Your task to perform on an android device: When is my next meeting? Image 0: 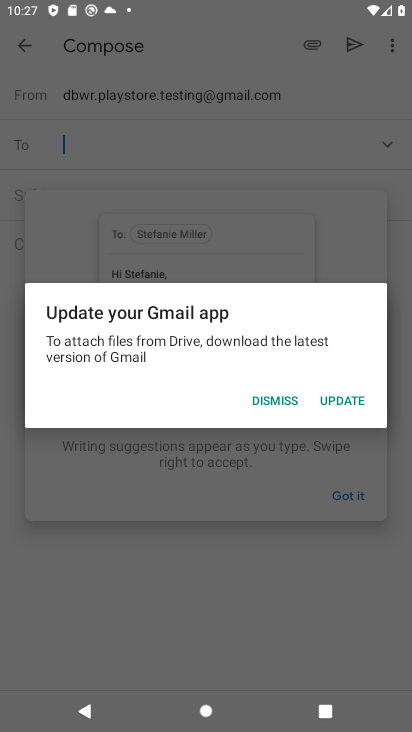
Step 0: press home button
Your task to perform on an android device: When is my next meeting? Image 1: 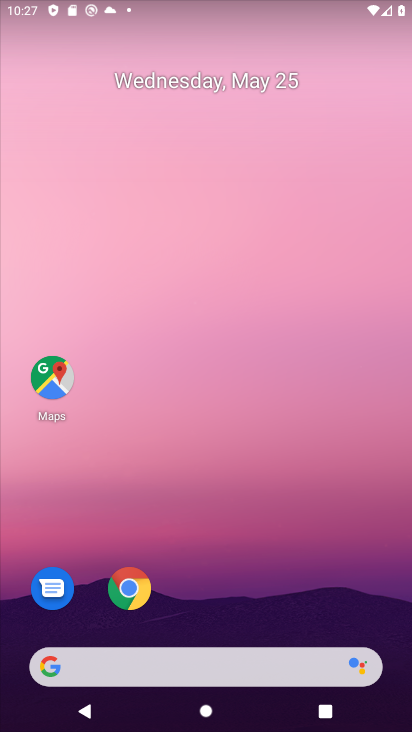
Step 1: drag from (208, 621) to (280, 40)
Your task to perform on an android device: When is my next meeting? Image 2: 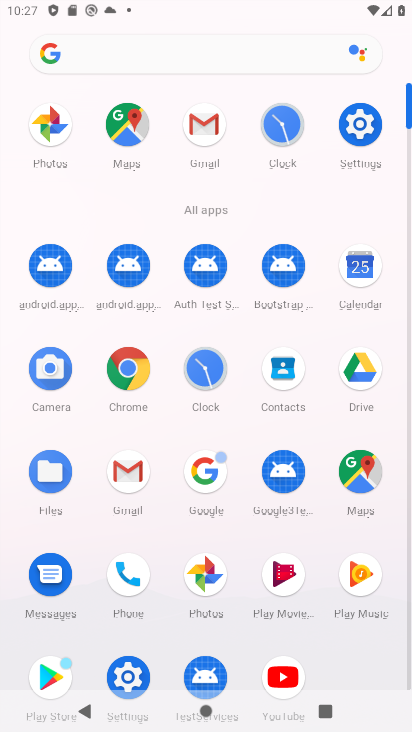
Step 2: click (374, 269)
Your task to perform on an android device: When is my next meeting? Image 3: 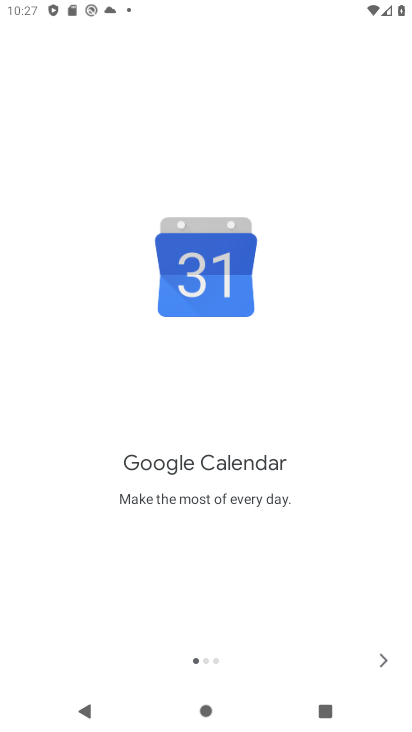
Step 3: click (384, 660)
Your task to perform on an android device: When is my next meeting? Image 4: 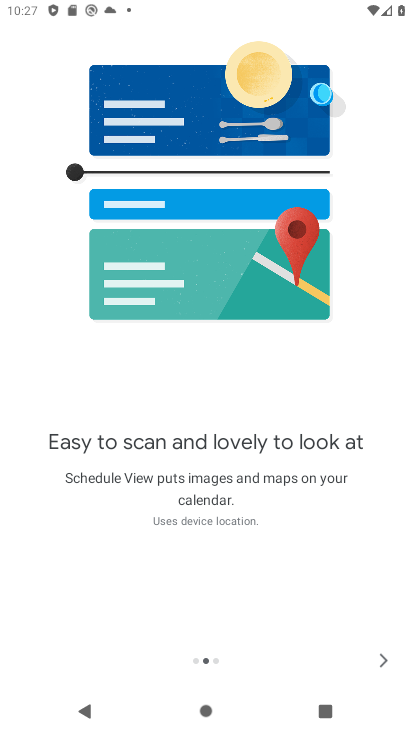
Step 4: click (384, 660)
Your task to perform on an android device: When is my next meeting? Image 5: 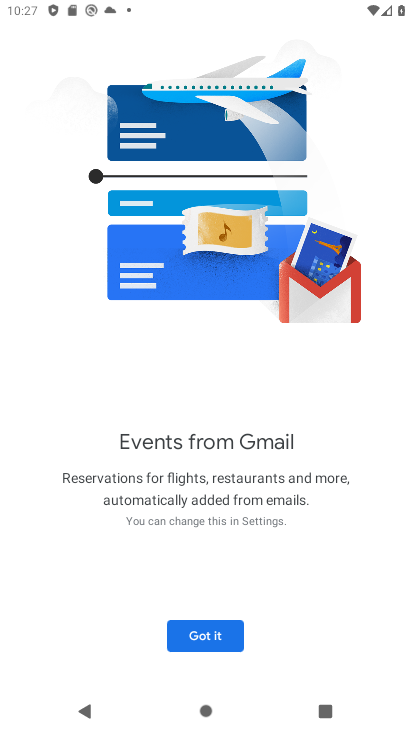
Step 5: click (220, 630)
Your task to perform on an android device: When is my next meeting? Image 6: 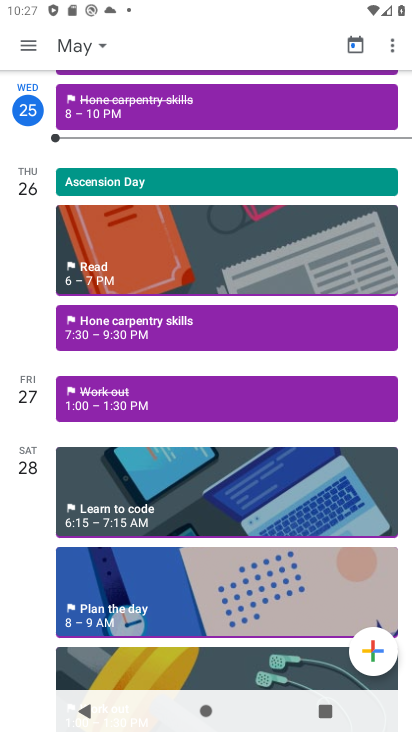
Step 6: task complete